Your task to perform on an android device: Open maps Image 0: 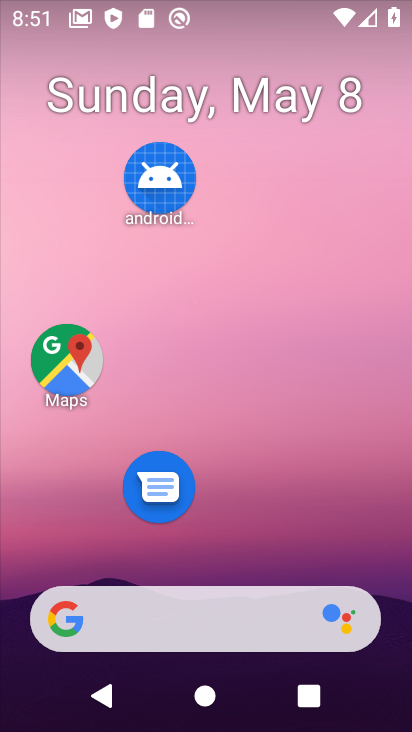
Step 0: click (69, 353)
Your task to perform on an android device: Open maps Image 1: 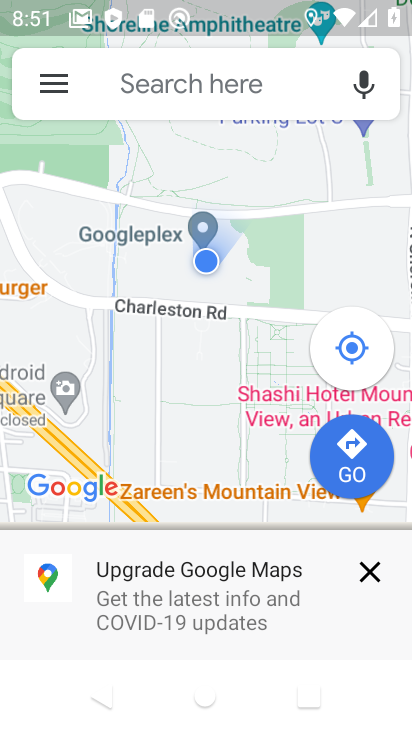
Step 1: task complete